Your task to perform on an android device: Go to Google maps Image 0: 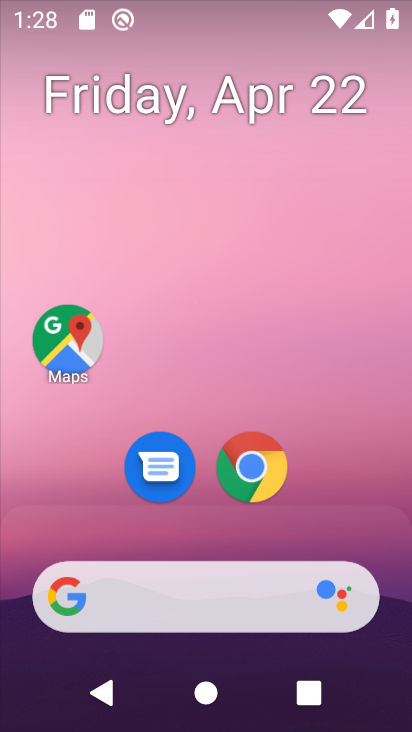
Step 0: click (69, 345)
Your task to perform on an android device: Go to Google maps Image 1: 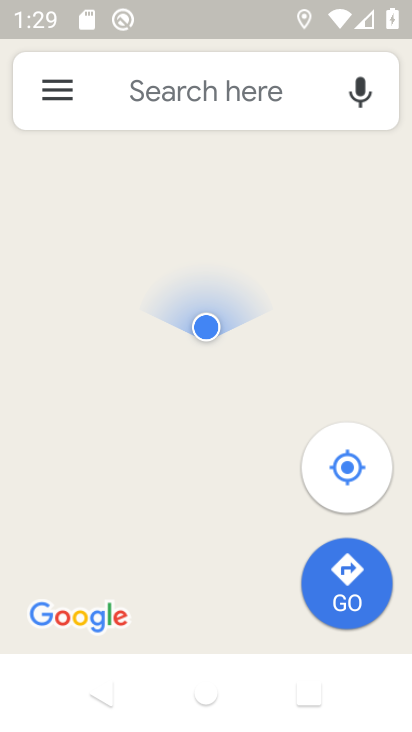
Step 1: task complete